Your task to perform on an android device: Open my contact list Image 0: 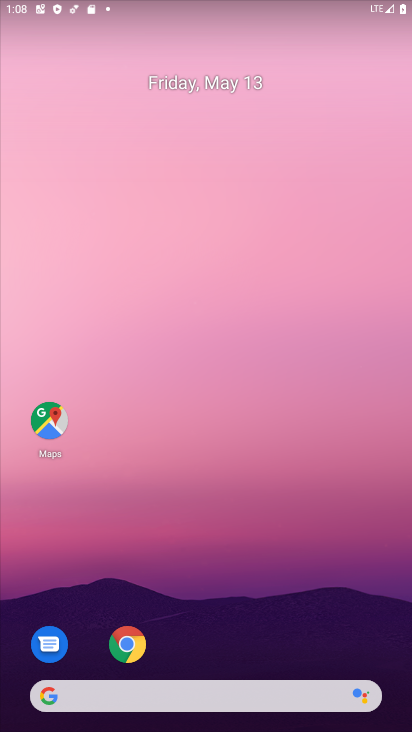
Step 0: drag from (322, 631) to (316, 61)
Your task to perform on an android device: Open my contact list Image 1: 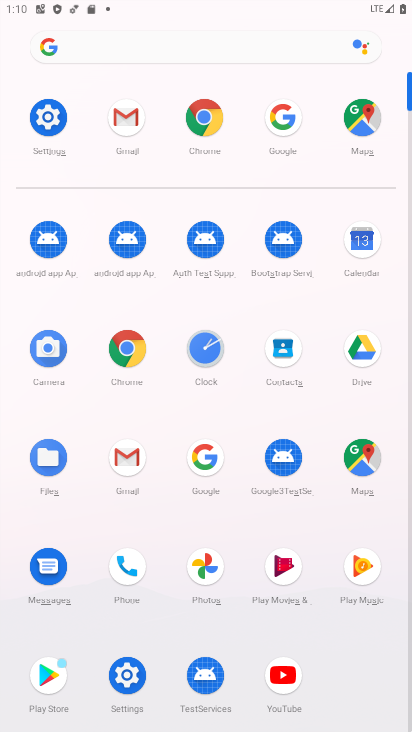
Step 1: click (299, 357)
Your task to perform on an android device: Open my contact list Image 2: 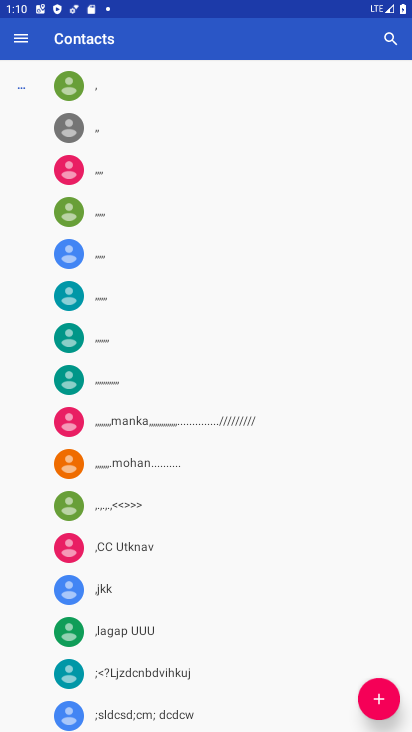
Step 2: task complete